Your task to perform on an android device: Open Youtube and go to the subscriptions tab Image 0: 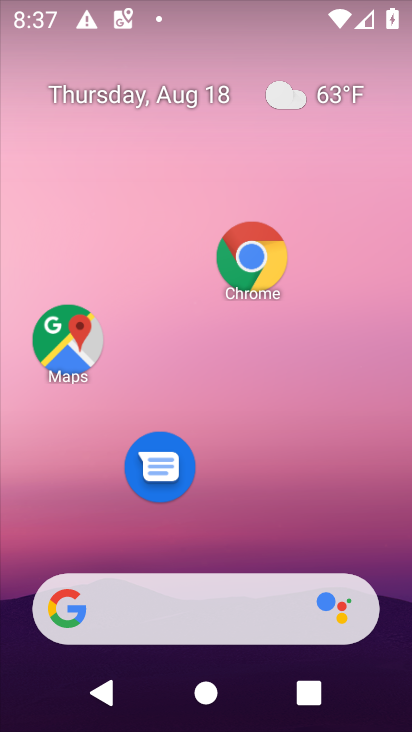
Step 0: drag from (349, 491) to (318, 174)
Your task to perform on an android device: Open Youtube and go to the subscriptions tab Image 1: 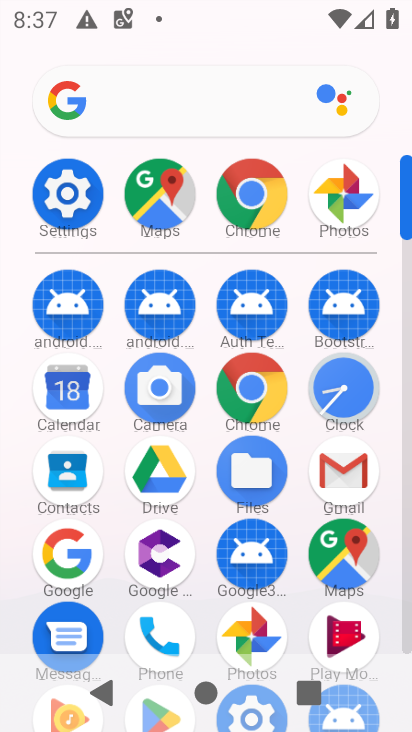
Step 1: task complete